Your task to perform on an android device: Is it going to rain tomorrow? Image 0: 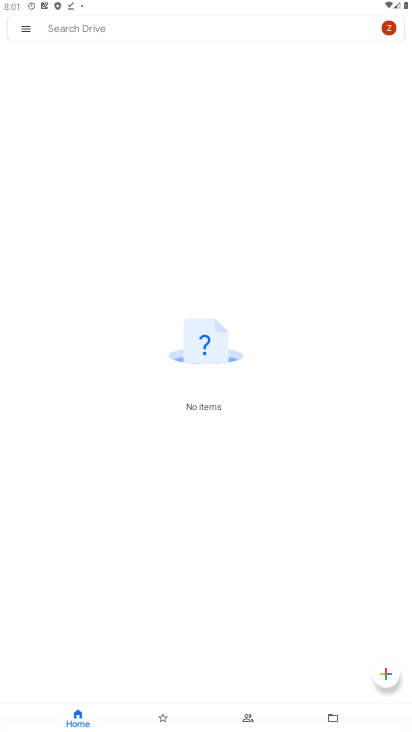
Step 0: press home button
Your task to perform on an android device: Is it going to rain tomorrow? Image 1: 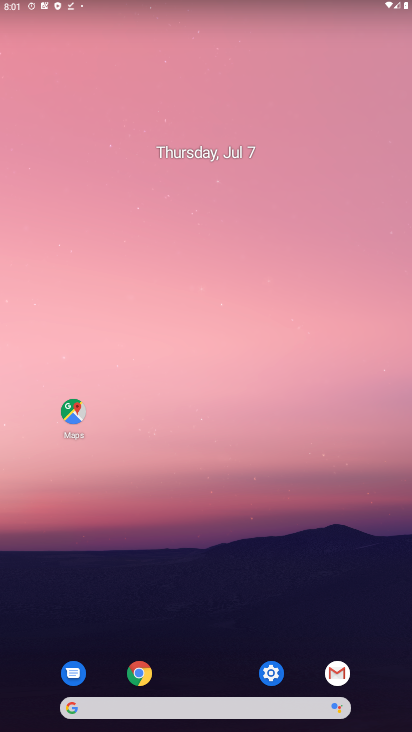
Step 1: drag from (231, 715) to (258, 302)
Your task to perform on an android device: Is it going to rain tomorrow? Image 2: 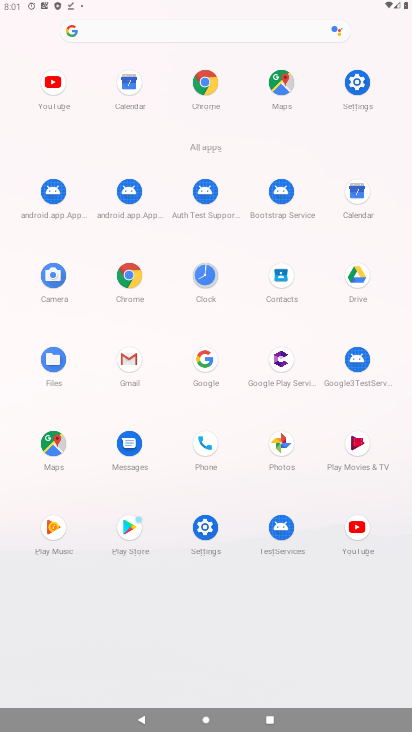
Step 2: click (141, 26)
Your task to perform on an android device: Is it going to rain tomorrow? Image 3: 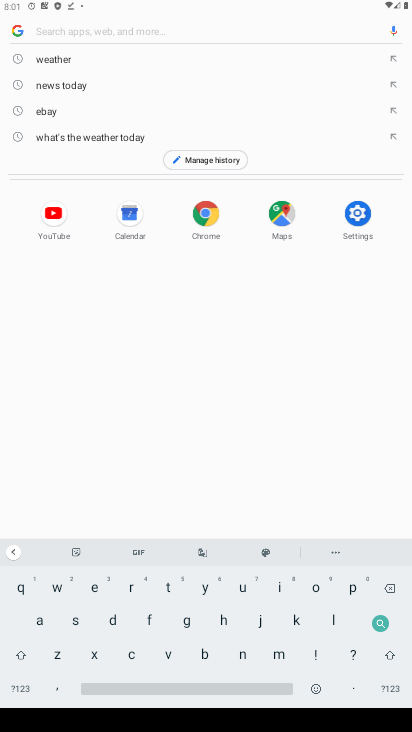
Step 3: click (126, 584)
Your task to perform on an android device: Is it going to rain tomorrow? Image 4: 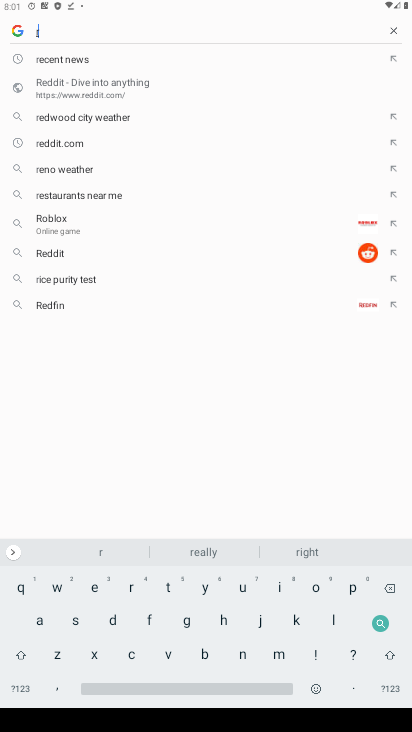
Step 4: click (39, 616)
Your task to perform on an android device: Is it going to rain tomorrow? Image 5: 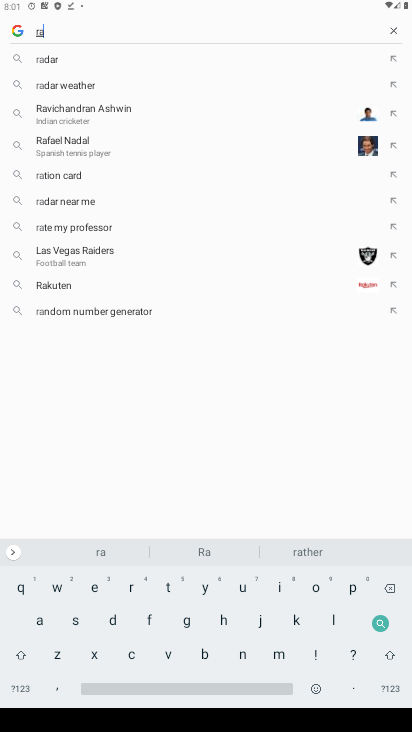
Step 5: click (276, 587)
Your task to perform on an android device: Is it going to rain tomorrow? Image 6: 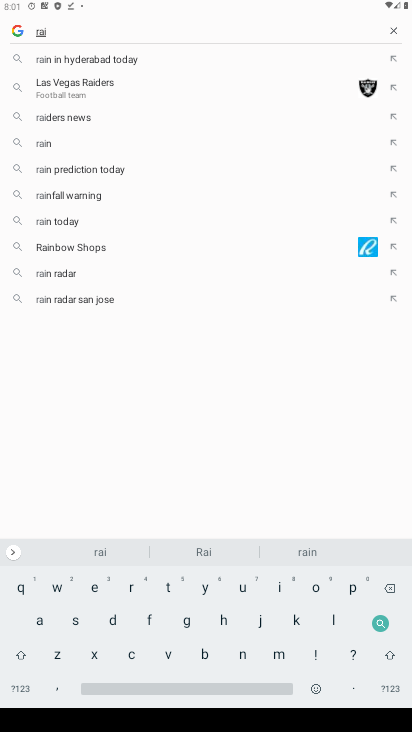
Step 6: click (305, 553)
Your task to perform on an android device: Is it going to rain tomorrow? Image 7: 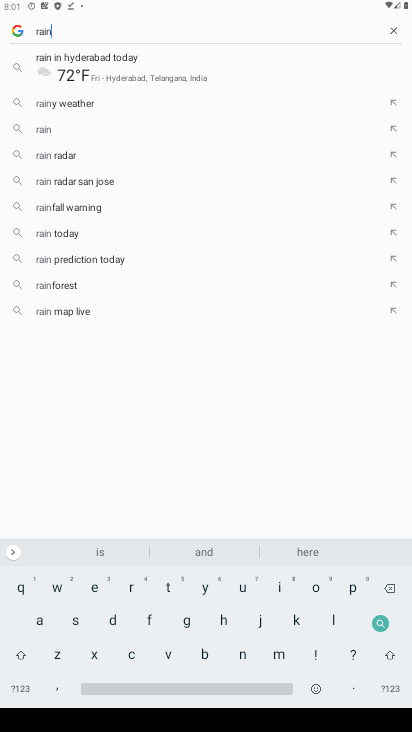
Step 7: click (161, 584)
Your task to perform on an android device: Is it going to rain tomorrow? Image 8: 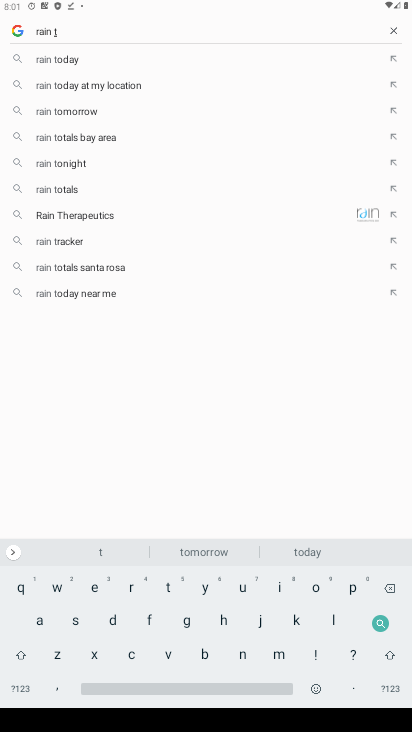
Step 8: click (311, 586)
Your task to perform on an android device: Is it going to rain tomorrow? Image 9: 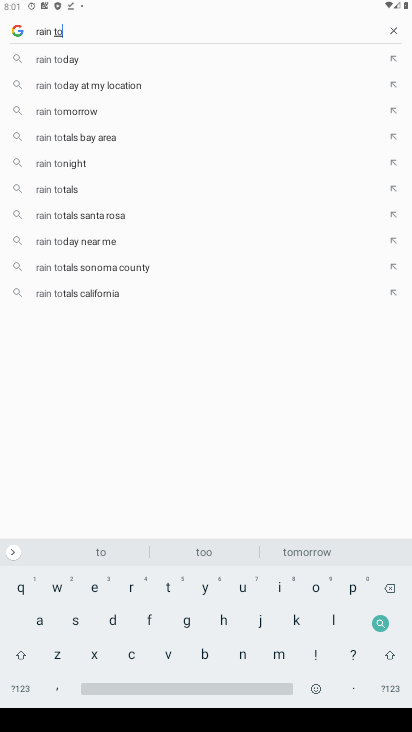
Step 9: click (79, 109)
Your task to perform on an android device: Is it going to rain tomorrow? Image 10: 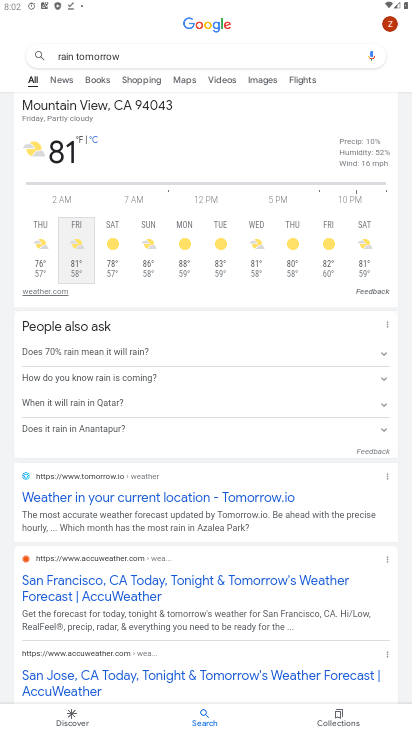
Step 10: task complete